Your task to perform on an android device: What is the news today? Image 0: 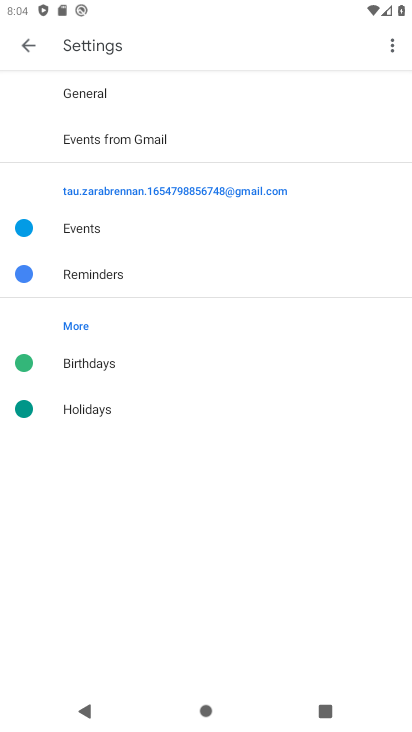
Step 0: press home button
Your task to perform on an android device: What is the news today? Image 1: 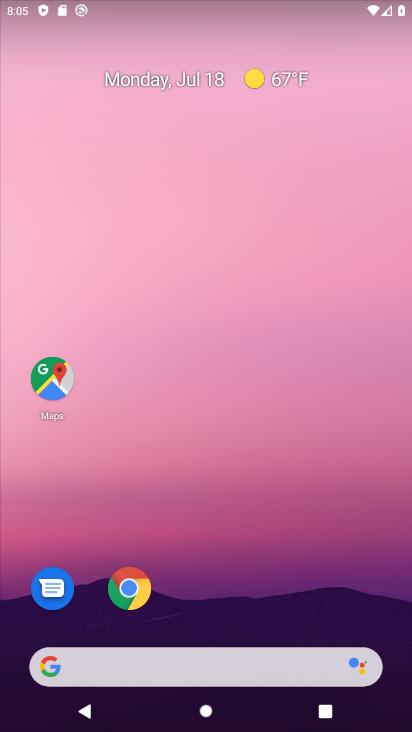
Step 1: drag from (312, 629) to (288, 223)
Your task to perform on an android device: What is the news today? Image 2: 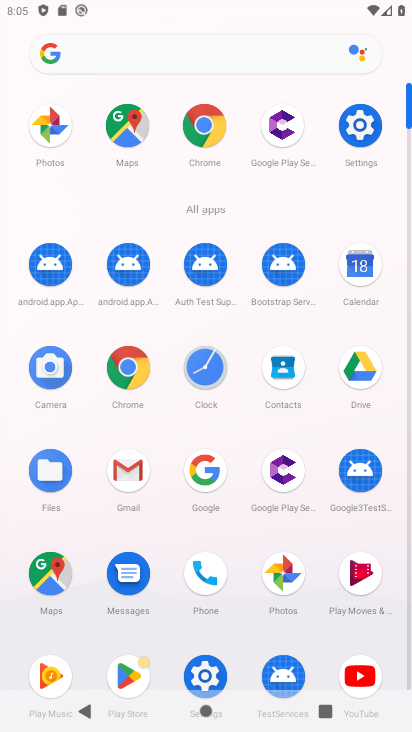
Step 2: click (196, 116)
Your task to perform on an android device: What is the news today? Image 3: 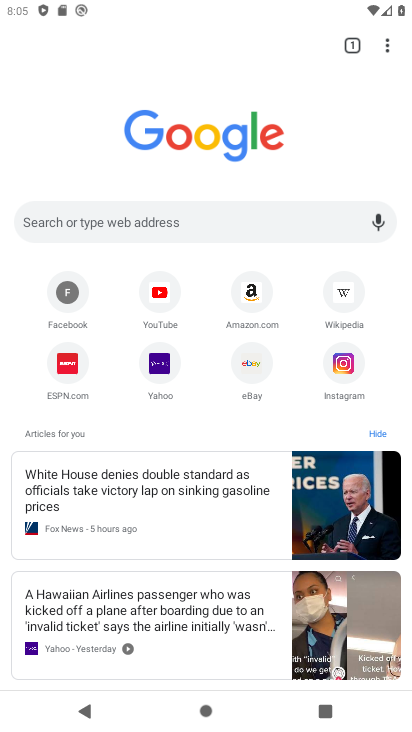
Step 3: click (254, 221)
Your task to perform on an android device: What is the news today? Image 4: 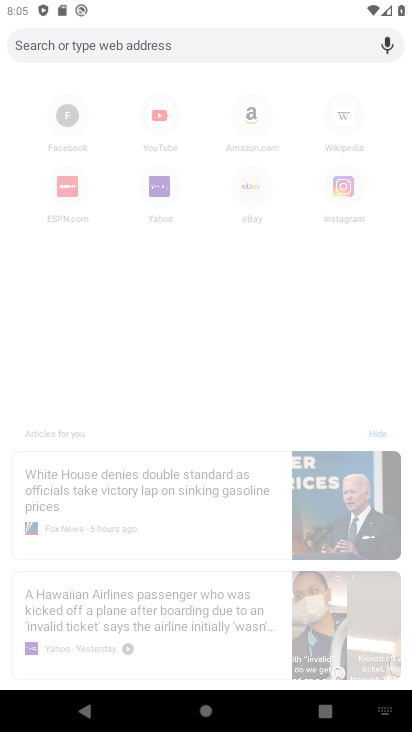
Step 4: type "What is the news today?"
Your task to perform on an android device: What is the news today? Image 5: 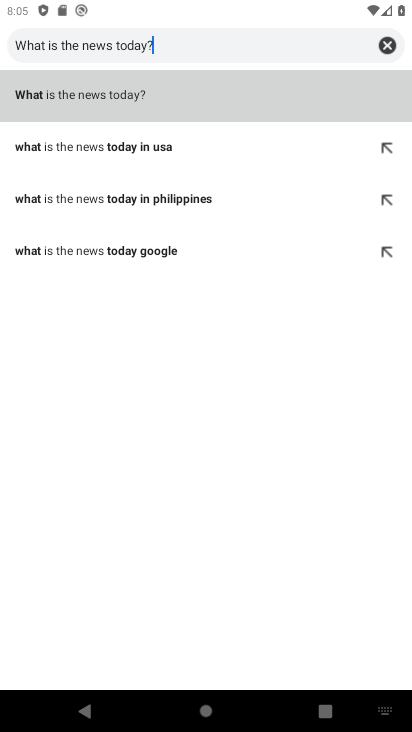
Step 5: click (230, 100)
Your task to perform on an android device: What is the news today? Image 6: 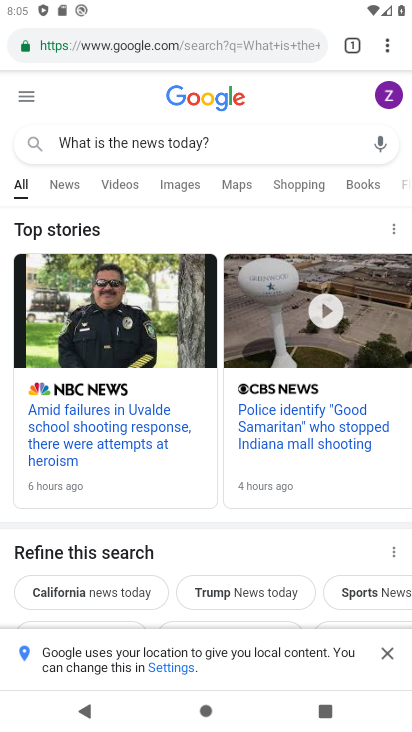
Step 6: task complete